Your task to perform on an android device: Go to display settings Image 0: 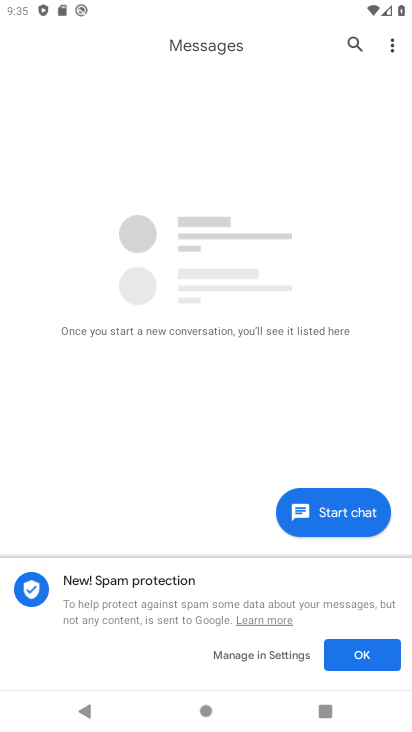
Step 0: press home button
Your task to perform on an android device: Go to display settings Image 1: 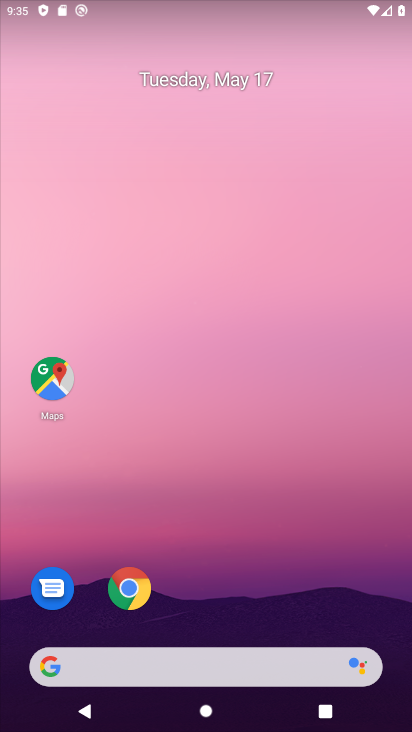
Step 1: drag from (221, 731) to (222, 107)
Your task to perform on an android device: Go to display settings Image 2: 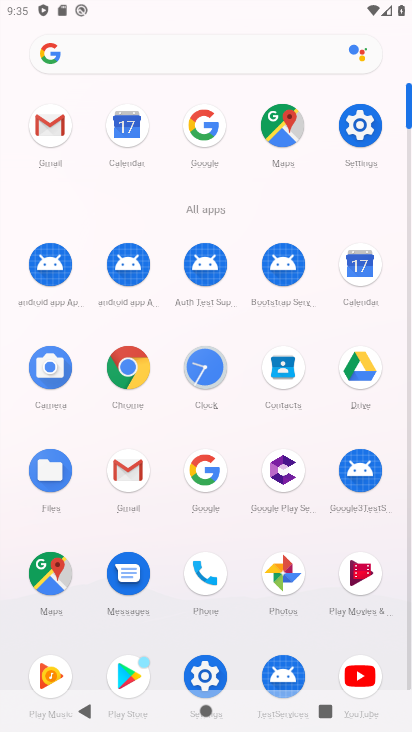
Step 2: click (361, 122)
Your task to perform on an android device: Go to display settings Image 3: 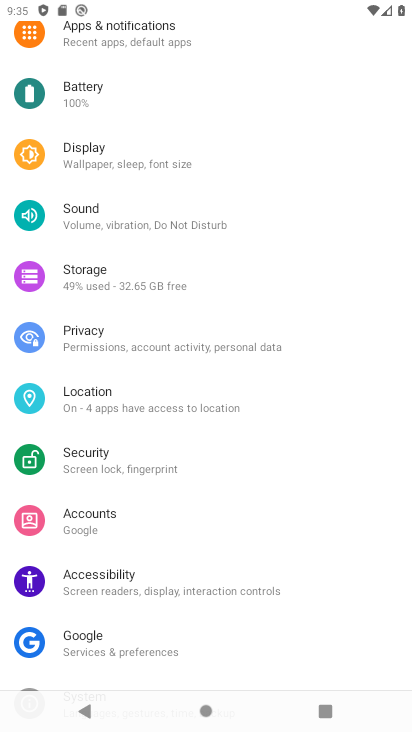
Step 3: click (103, 158)
Your task to perform on an android device: Go to display settings Image 4: 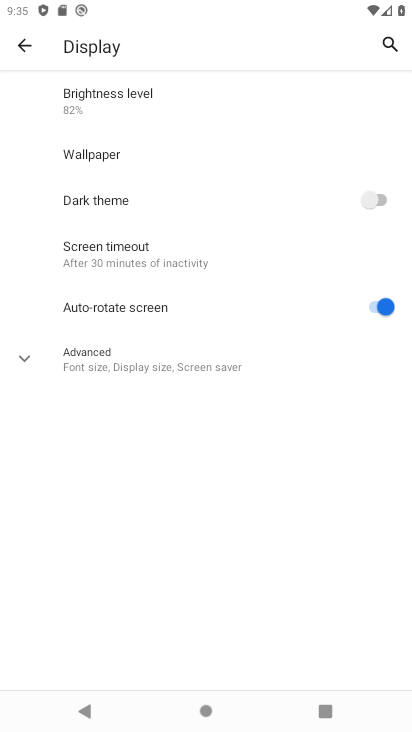
Step 4: task complete